Your task to perform on an android device: choose inbox layout in the gmail app Image 0: 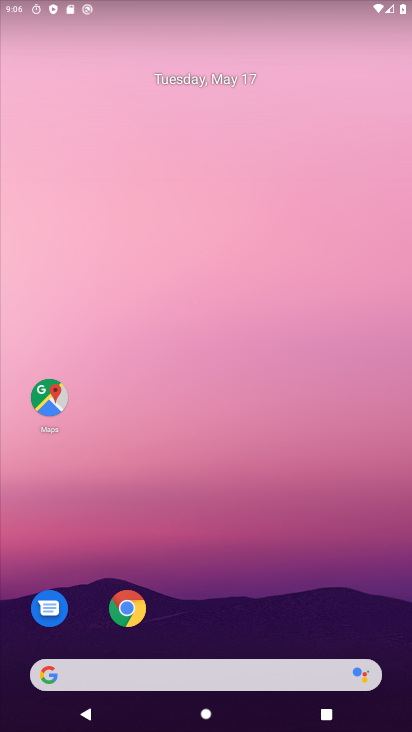
Step 0: drag from (268, 493) to (306, 211)
Your task to perform on an android device: choose inbox layout in the gmail app Image 1: 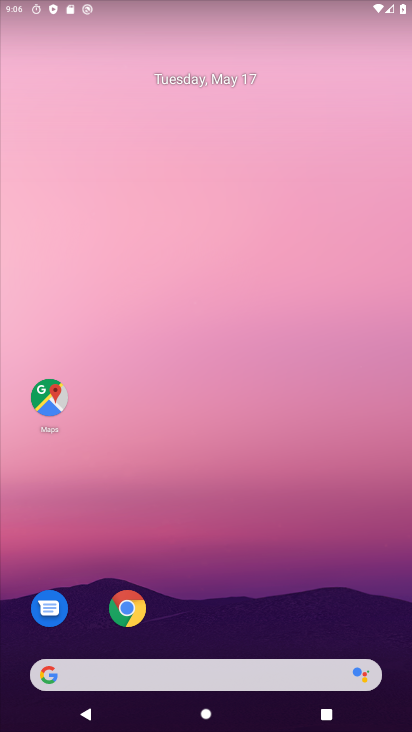
Step 1: drag from (278, 578) to (286, 193)
Your task to perform on an android device: choose inbox layout in the gmail app Image 2: 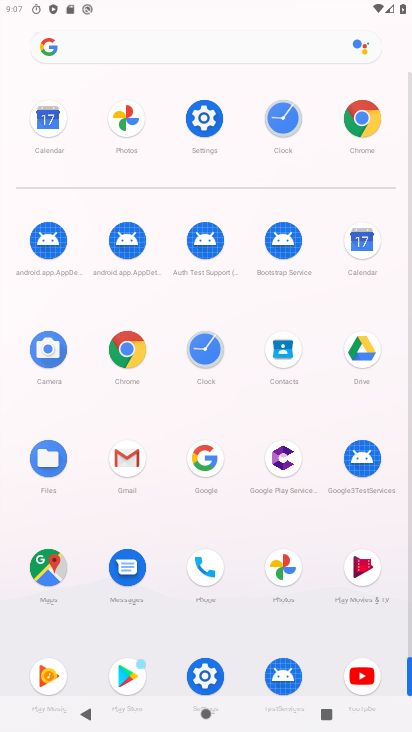
Step 2: click (124, 455)
Your task to perform on an android device: choose inbox layout in the gmail app Image 3: 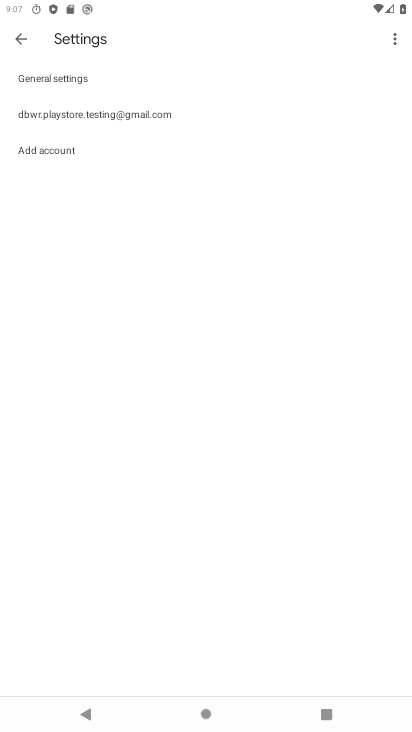
Step 3: click (111, 117)
Your task to perform on an android device: choose inbox layout in the gmail app Image 4: 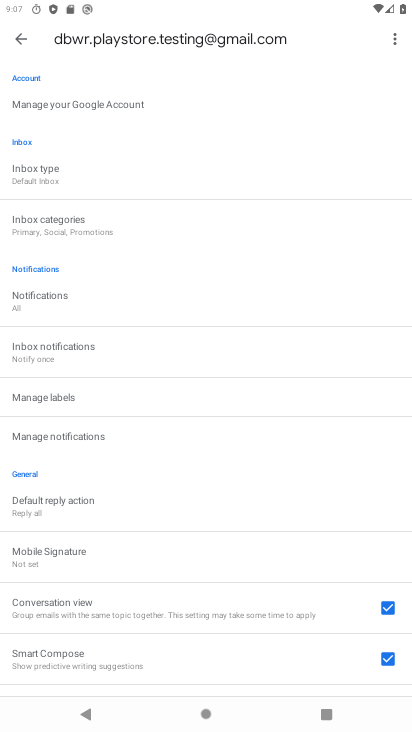
Step 4: click (52, 174)
Your task to perform on an android device: choose inbox layout in the gmail app Image 5: 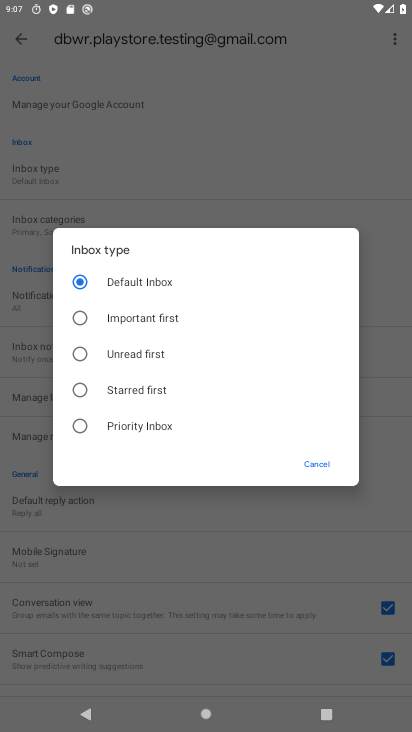
Step 5: click (80, 428)
Your task to perform on an android device: choose inbox layout in the gmail app Image 6: 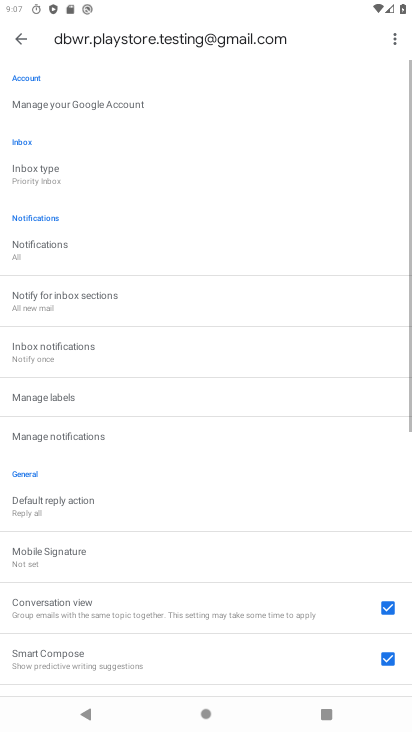
Step 6: task complete